Your task to perform on an android device: Go to Maps Image 0: 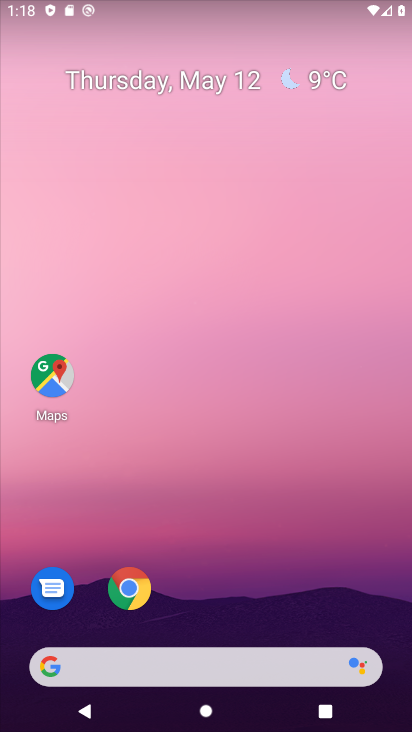
Step 0: drag from (403, 639) to (310, 73)
Your task to perform on an android device: Go to Maps Image 1: 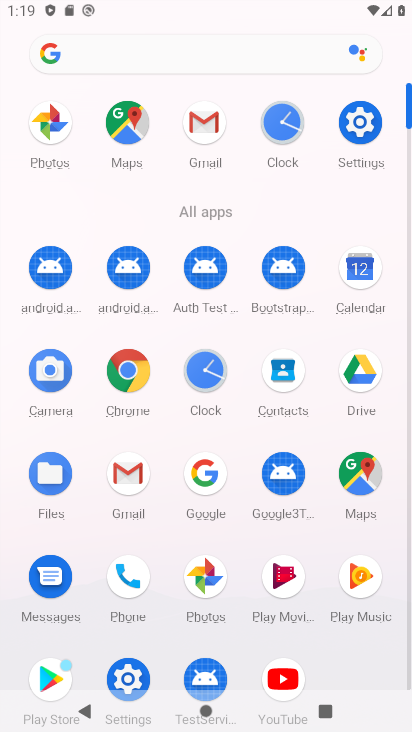
Step 1: click (346, 461)
Your task to perform on an android device: Go to Maps Image 2: 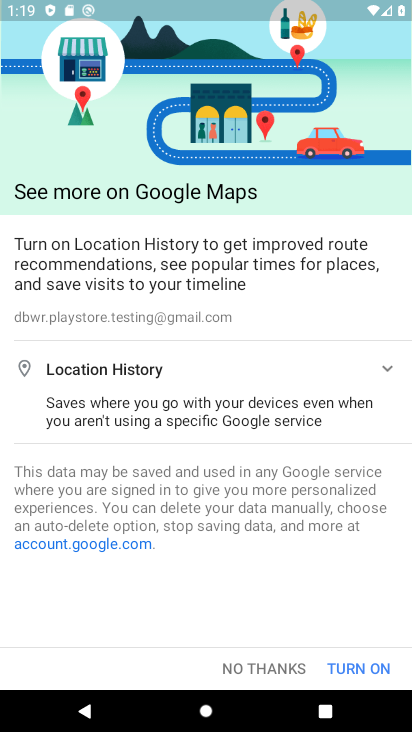
Step 2: task complete